Your task to perform on an android device: Open Google Chrome and open the bookmarks view Image 0: 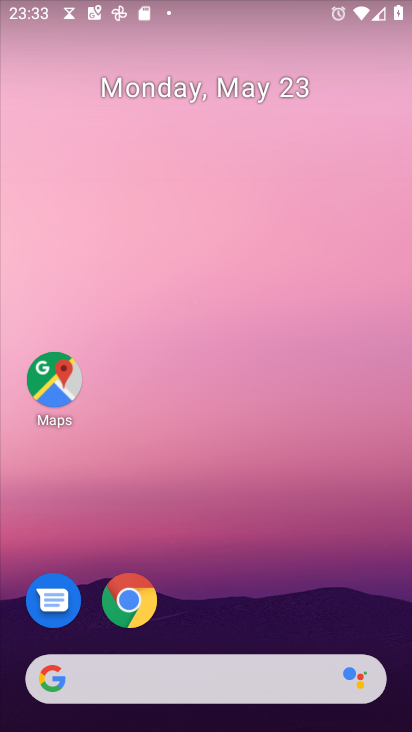
Step 0: click (131, 601)
Your task to perform on an android device: Open Google Chrome and open the bookmarks view Image 1: 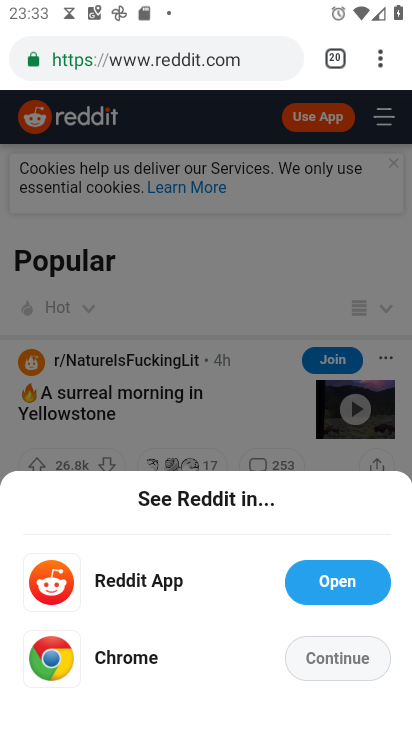
Step 1: click (381, 63)
Your task to perform on an android device: Open Google Chrome and open the bookmarks view Image 2: 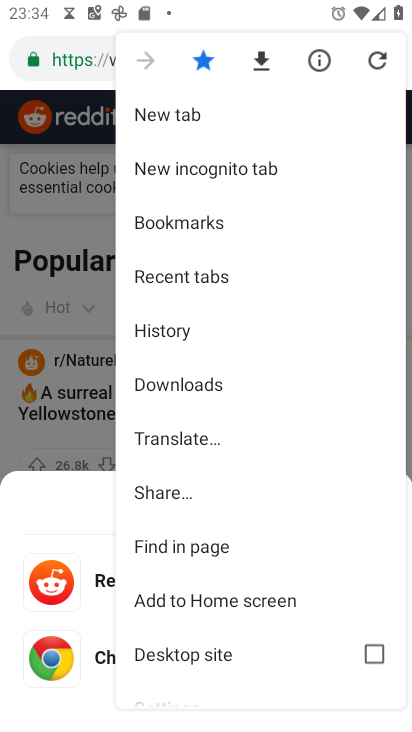
Step 2: click (185, 222)
Your task to perform on an android device: Open Google Chrome and open the bookmarks view Image 3: 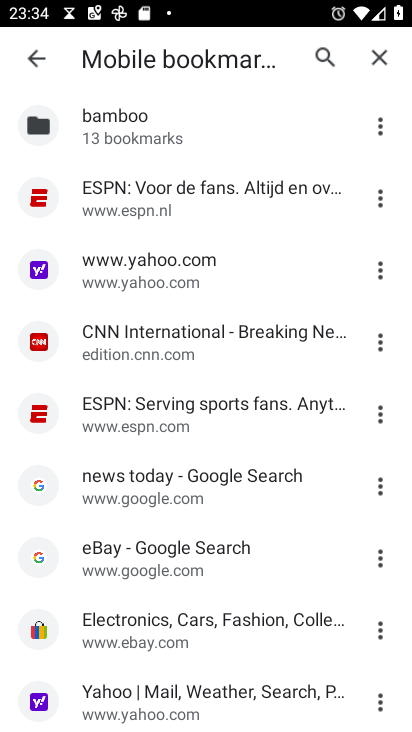
Step 3: task complete